Your task to perform on an android device: Go to notification settings Image 0: 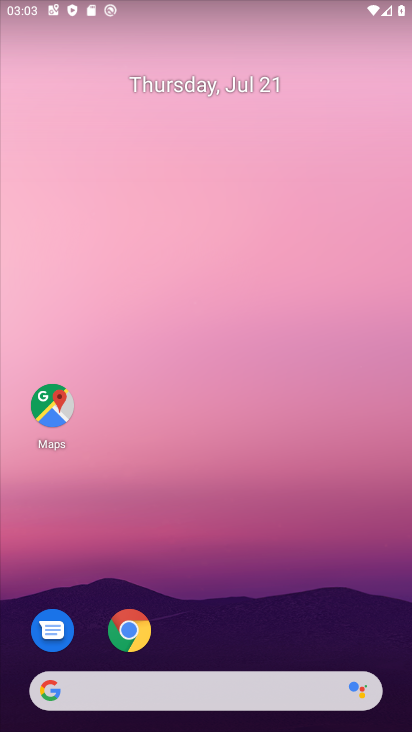
Step 0: drag from (192, 652) to (171, 104)
Your task to perform on an android device: Go to notification settings Image 1: 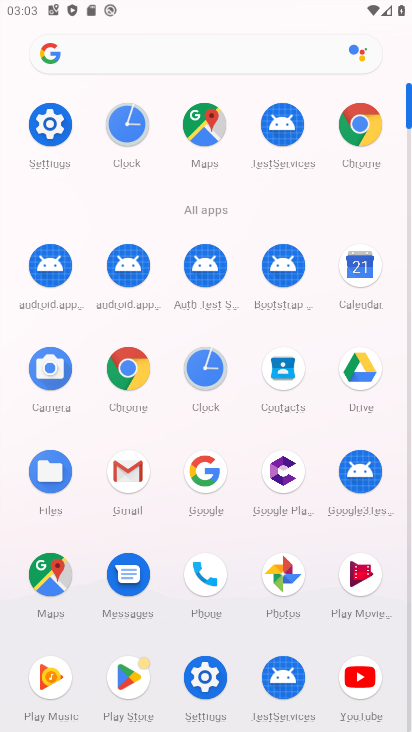
Step 1: click (67, 139)
Your task to perform on an android device: Go to notification settings Image 2: 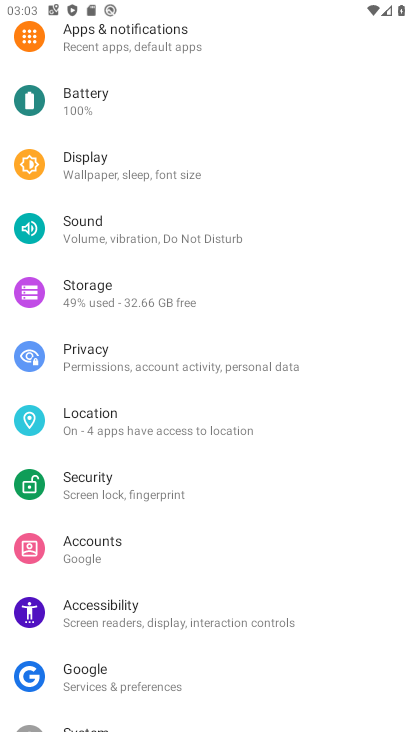
Step 2: click (123, 58)
Your task to perform on an android device: Go to notification settings Image 3: 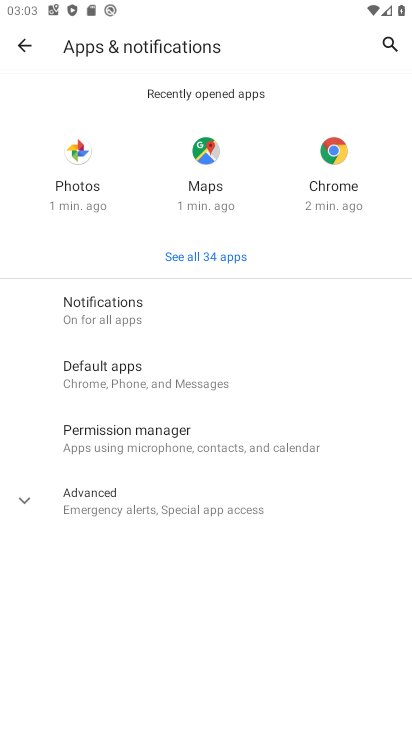
Step 3: task complete